Your task to perform on an android device: check out phone information Image 0: 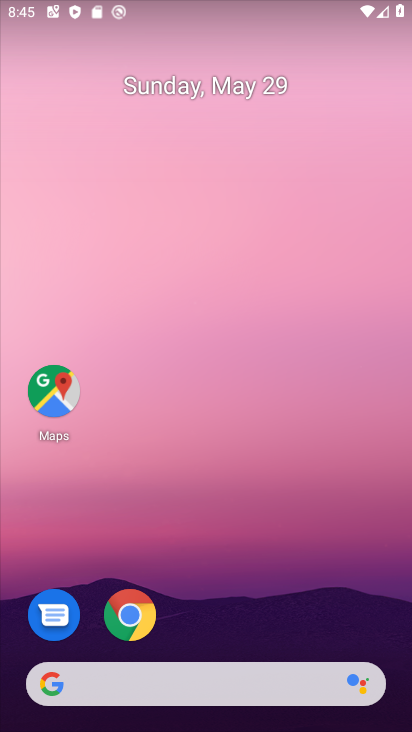
Step 0: drag from (214, 637) to (195, 0)
Your task to perform on an android device: check out phone information Image 1: 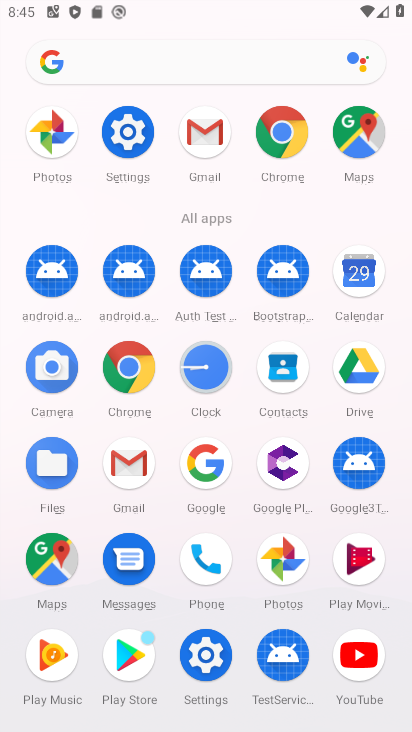
Step 1: click (115, 135)
Your task to perform on an android device: check out phone information Image 2: 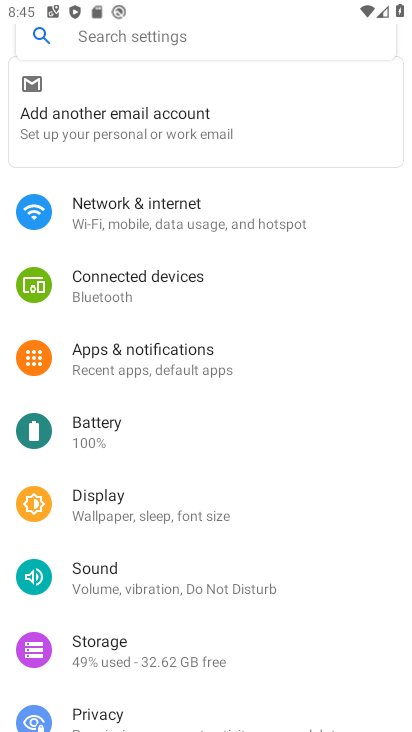
Step 2: drag from (217, 636) to (216, 67)
Your task to perform on an android device: check out phone information Image 3: 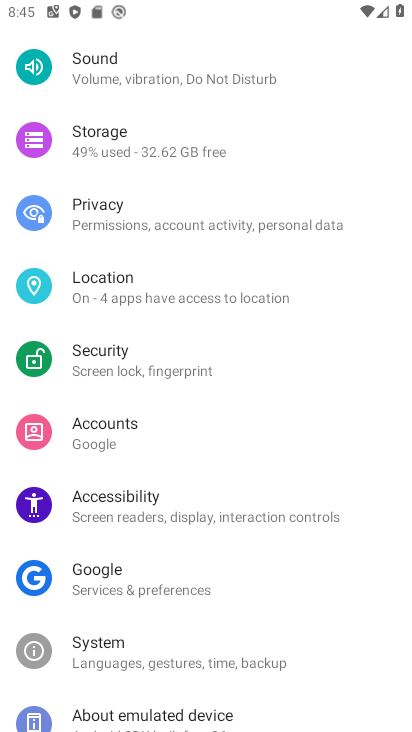
Step 3: drag from (158, 614) to (207, 210)
Your task to perform on an android device: check out phone information Image 4: 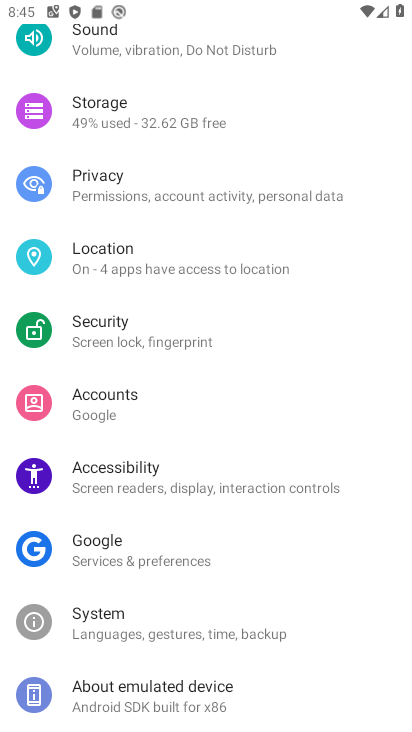
Step 4: click (92, 681)
Your task to perform on an android device: check out phone information Image 5: 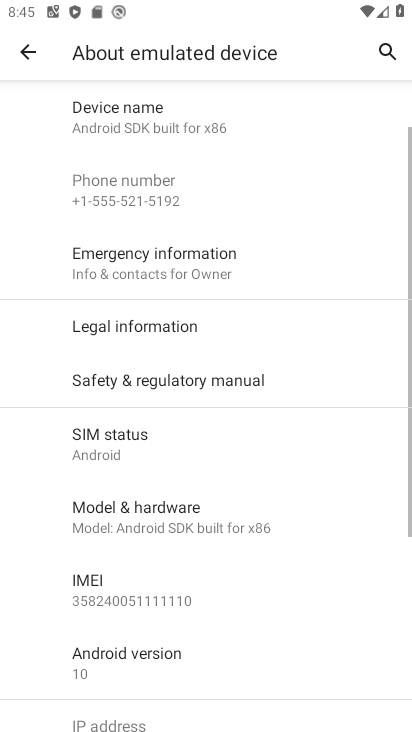
Step 5: task complete